Your task to perform on an android device: change notifications settings Image 0: 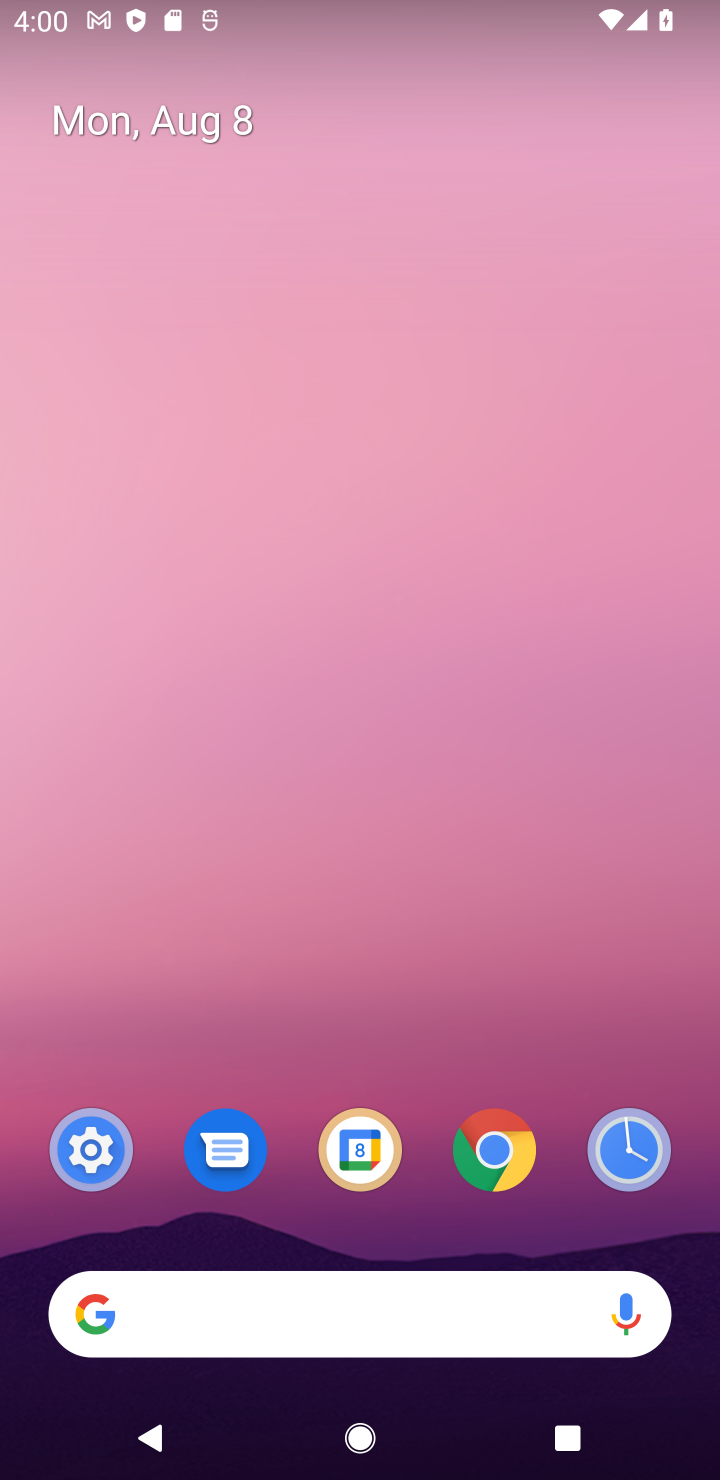
Step 0: click (99, 1190)
Your task to perform on an android device: change notifications settings Image 1: 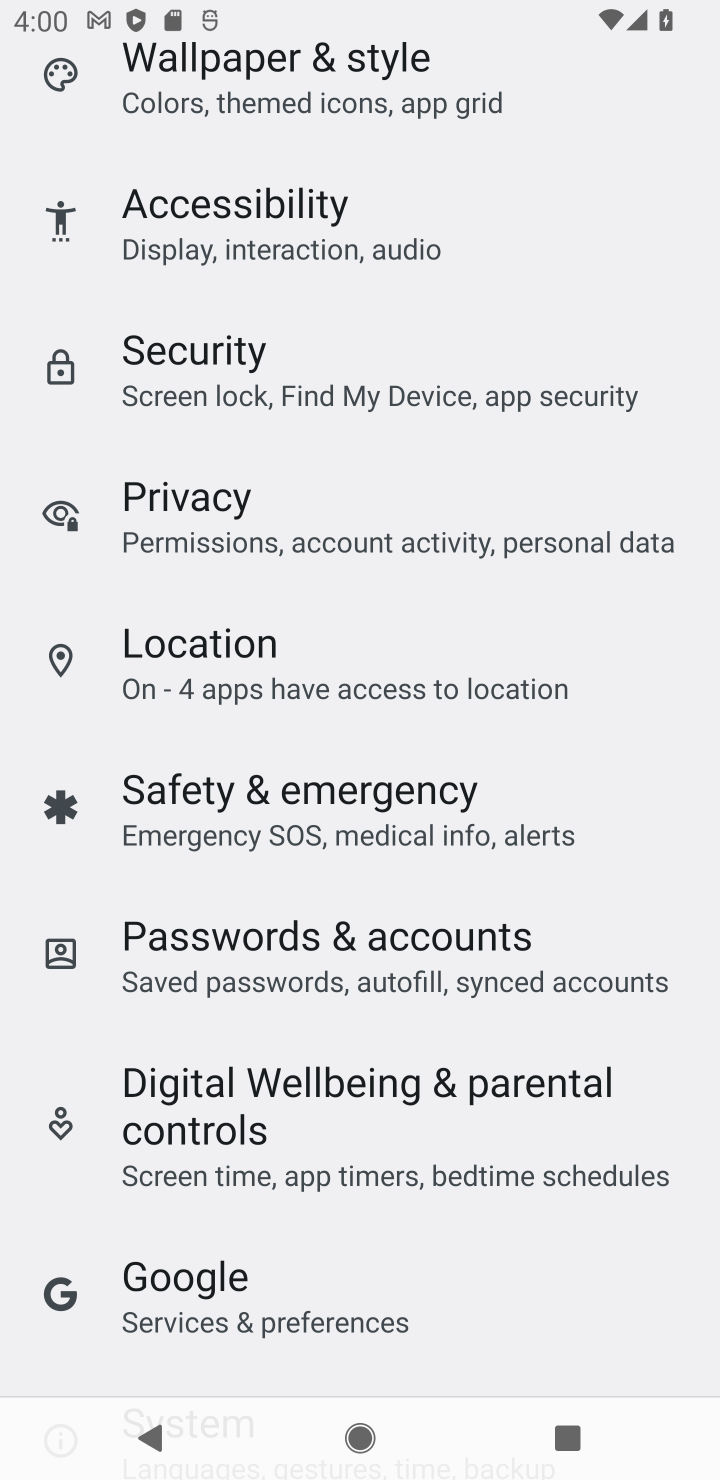
Step 1: task complete